Your task to perform on an android device: uninstall "Google Play Music" Image 0: 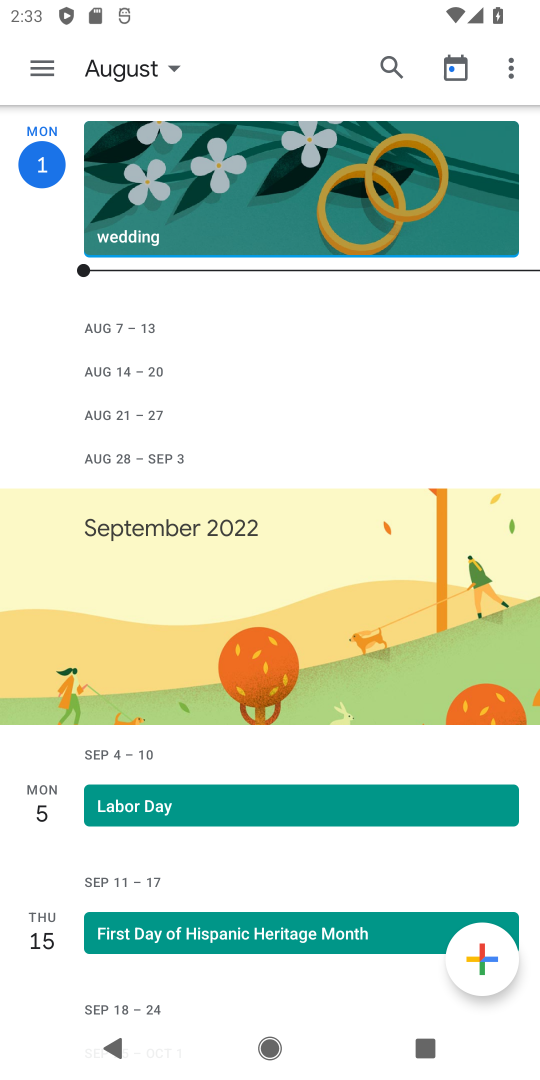
Step 0: press home button
Your task to perform on an android device: uninstall "Google Play Music" Image 1: 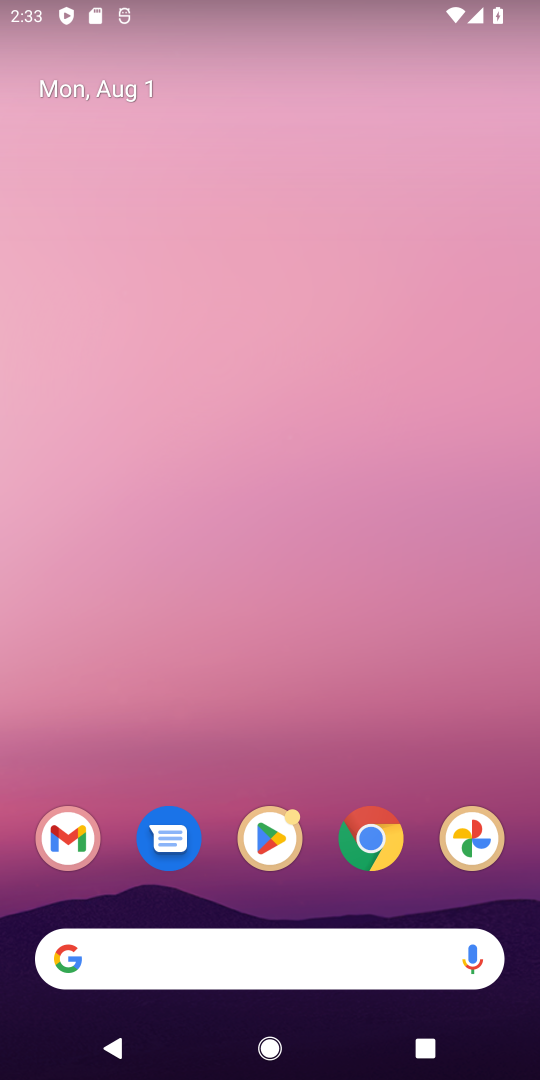
Step 1: drag from (260, 716) to (312, 150)
Your task to perform on an android device: uninstall "Google Play Music" Image 2: 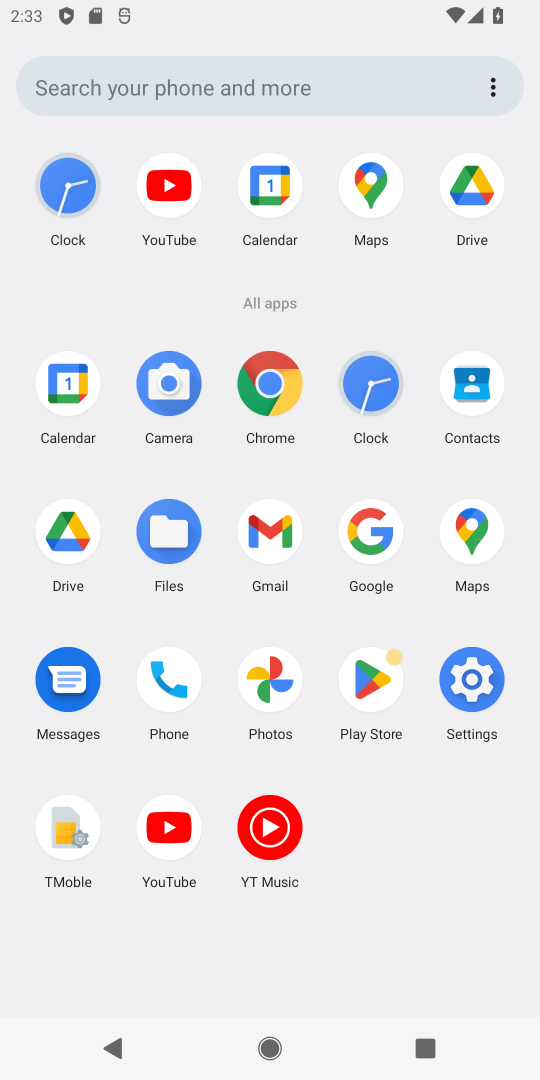
Step 2: click (374, 678)
Your task to perform on an android device: uninstall "Google Play Music" Image 3: 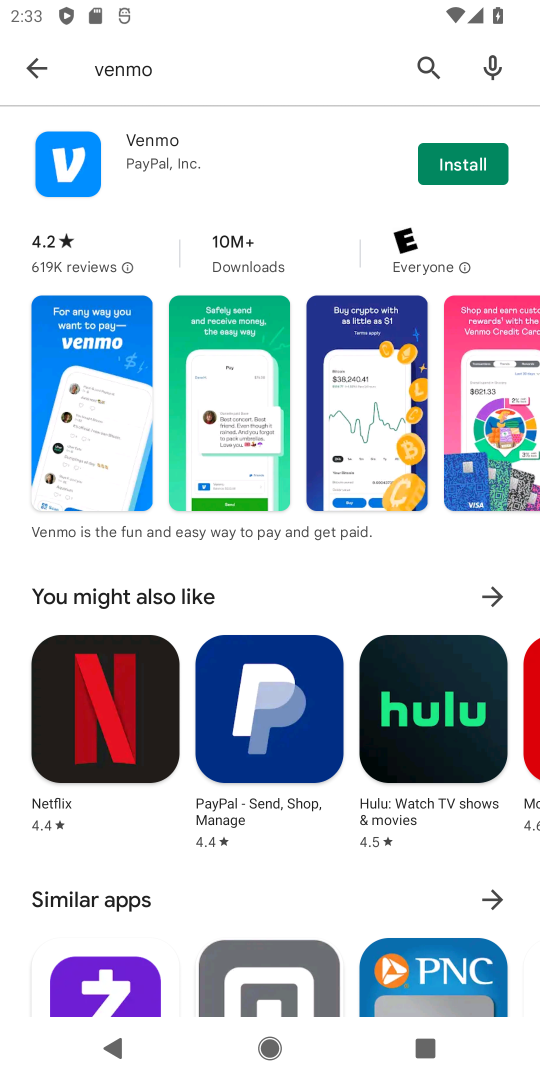
Step 3: click (336, 70)
Your task to perform on an android device: uninstall "Google Play Music" Image 4: 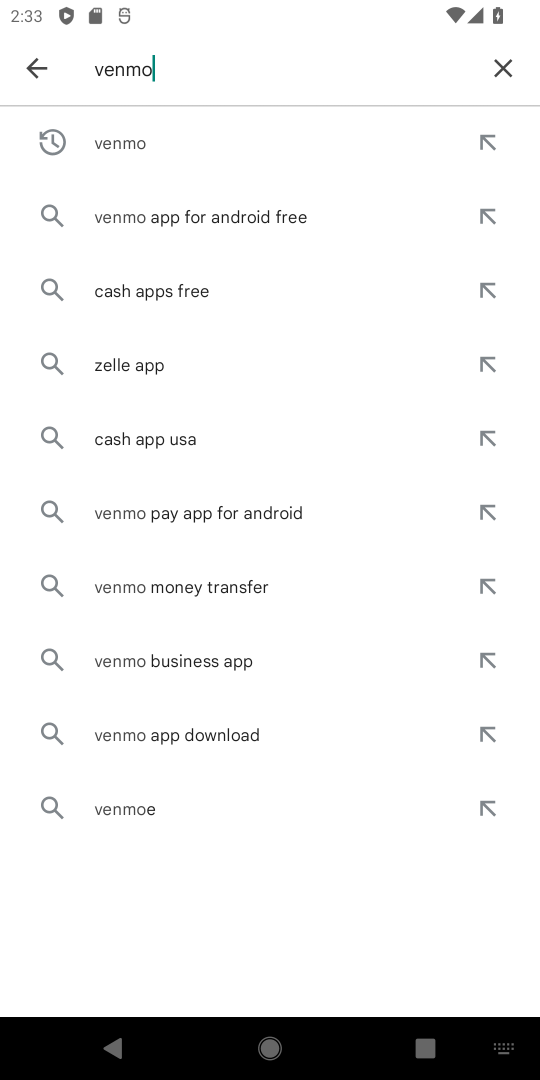
Step 4: click (497, 60)
Your task to perform on an android device: uninstall "Google Play Music" Image 5: 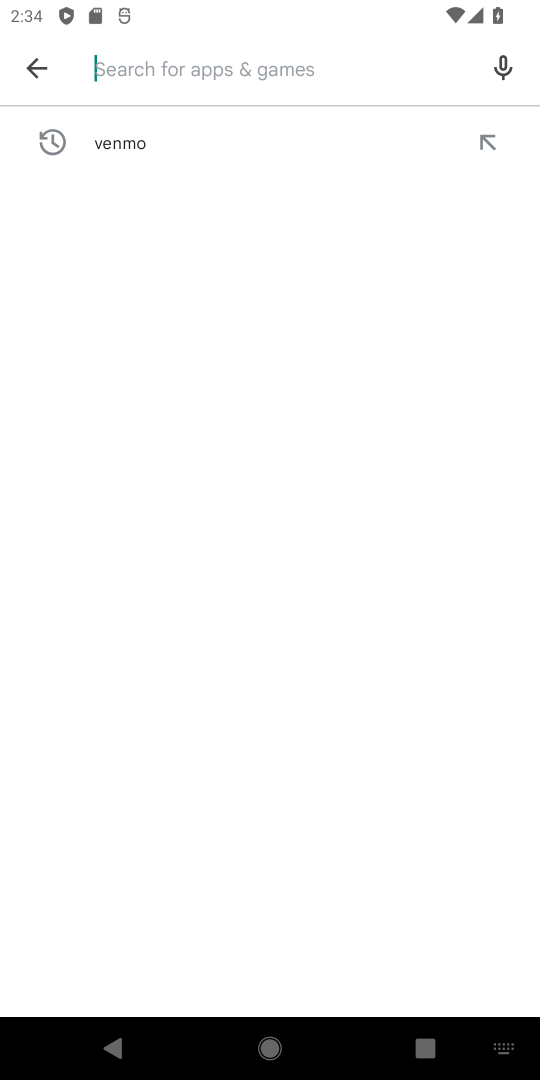
Step 5: type "google play music"
Your task to perform on an android device: uninstall "Google Play Music" Image 6: 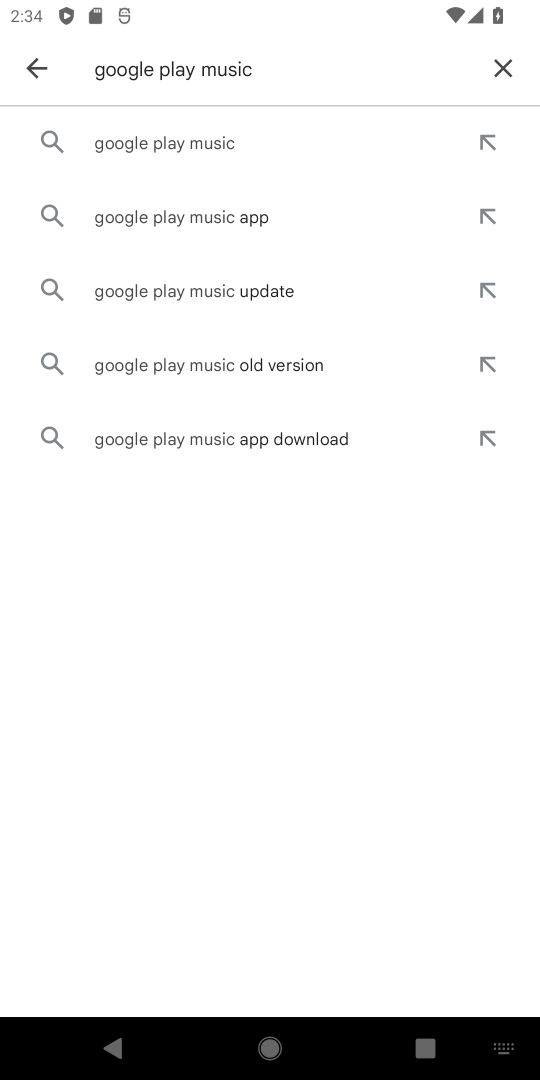
Step 6: click (217, 138)
Your task to perform on an android device: uninstall "Google Play Music" Image 7: 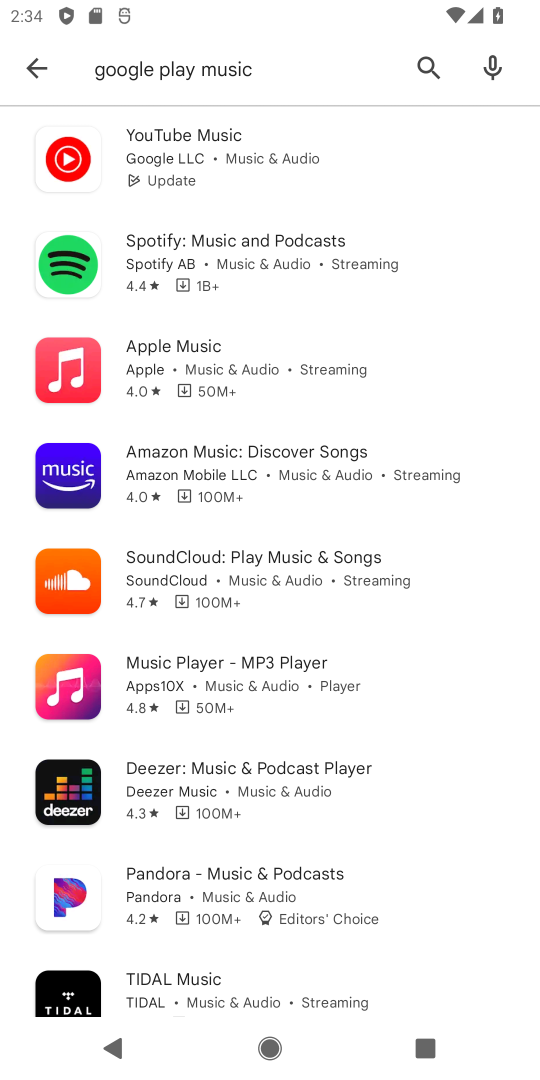
Step 7: task complete